Your task to perform on an android device: uninstall "Google Duo" Image 0: 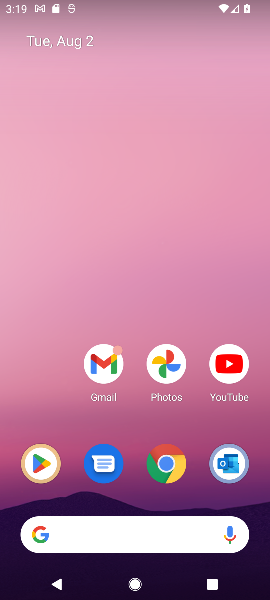
Step 0: press home button
Your task to perform on an android device: uninstall "Google Duo" Image 1: 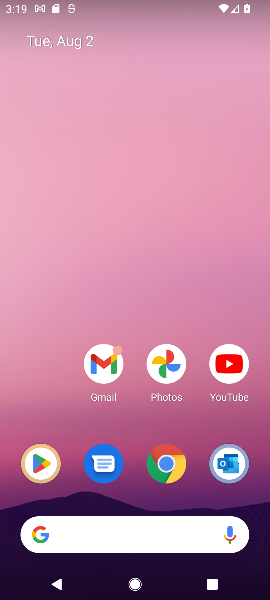
Step 1: click (42, 458)
Your task to perform on an android device: uninstall "Google Duo" Image 2: 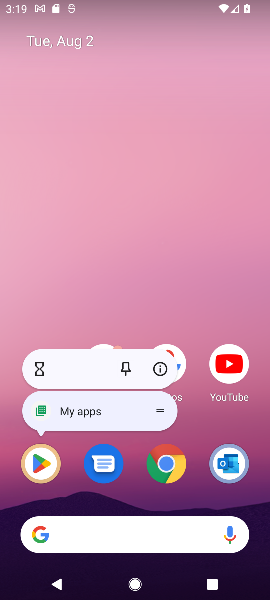
Step 2: click (39, 464)
Your task to perform on an android device: uninstall "Google Duo" Image 3: 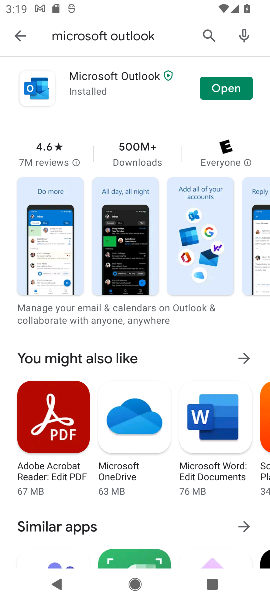
Step 3: click (205, 28)
Your task to perform on an android device: uninstall "Google Duo" Image 4: 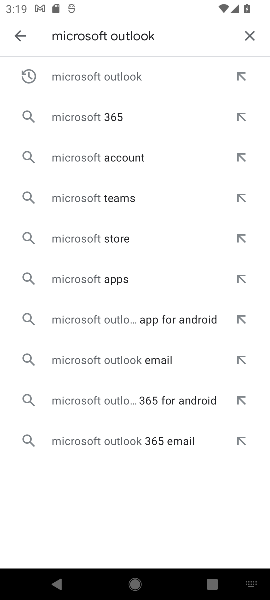
Step 4: click (252, 33)
Your task to perform on an android device: uninstall "Google Duo" Image 5: 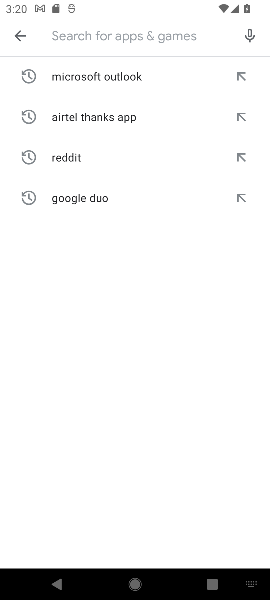
Step 5: type "Google Duo"
Your task to perform on an android device: uninstall "Google Duo" Image 6: 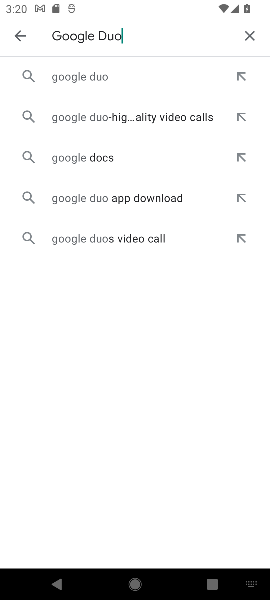
Step 6: click (97, 75)
Your task to perform on an android device: uninstall "Google Duo" Image 7: 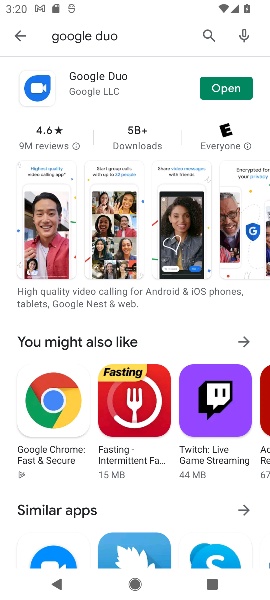
Step 7: click (68, 87)
Your task to perform on an android device: uninstall "Google Duo" Image 8: 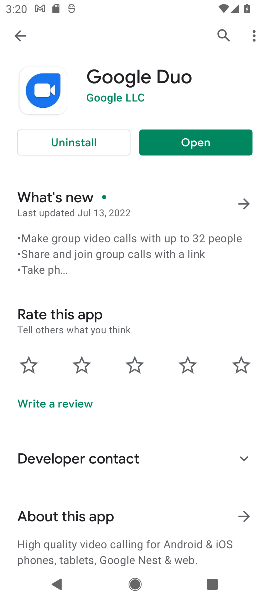
Step 8: click (82, 141)
Your task to perform on an android device: uninstall "Google Duo" Image 9: 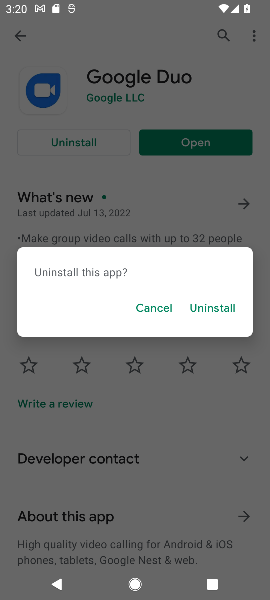
Step 9: click (217, 304)
Your task to perform on an android device: uninstall "Google Duo" Image 10: 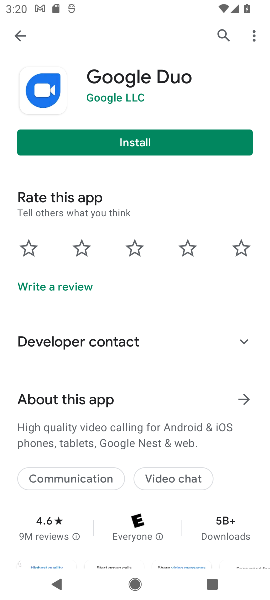
Step 10: task complete